Your task to perform on an android device: delete the emails in spam in the gmail app Image 0: 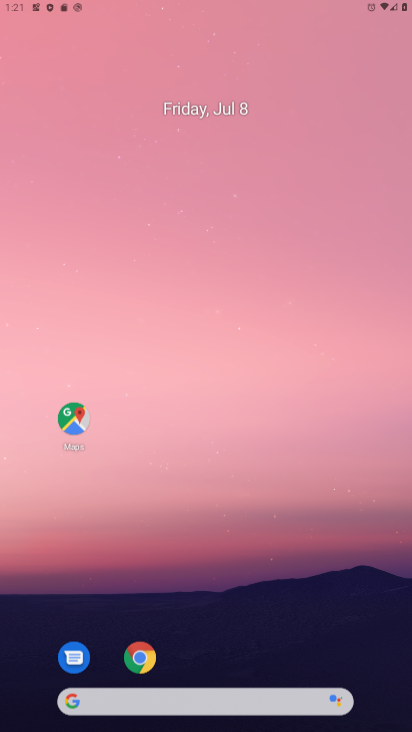
Step 0: press home button
Your task to perform on an android device: delete the emails in spam in the gmail app Image 1: 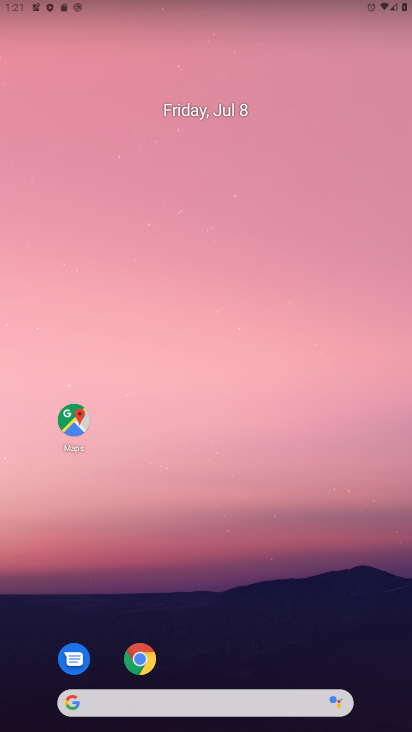
Step 1: drag from (240, 604) to (120, 70)
Your task to perform on an android device: delete the emails in spam in the gmail app Image 2: 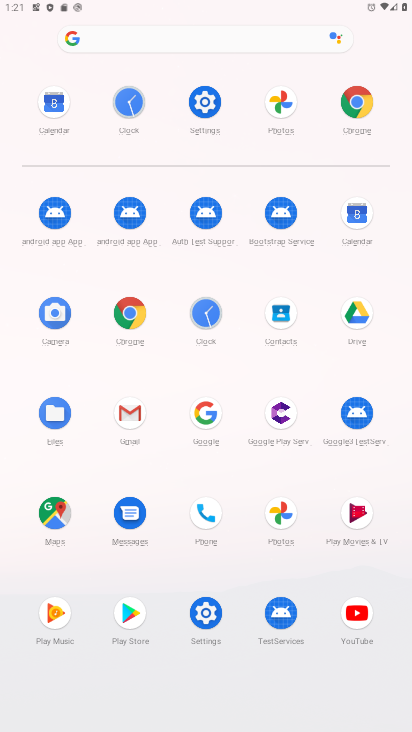
Step 2: click (138, 413)
Your task to perform on an android device: delete the emails in spam in the gmail app Image 3: 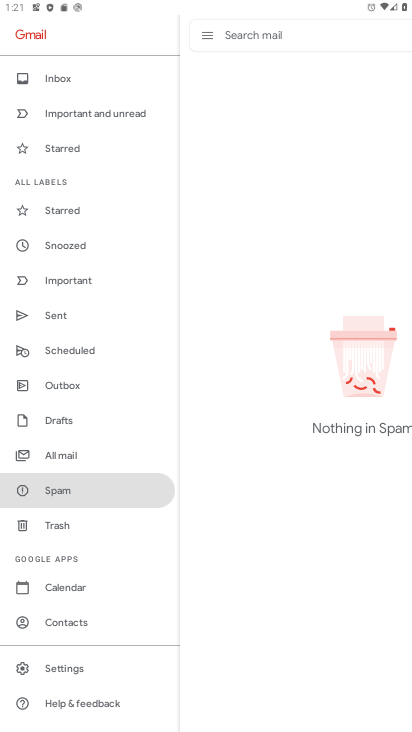
Step 3: click (61, 484)
Your task to perform on an android device: delete the emails in spam in the gmail app Image 4: 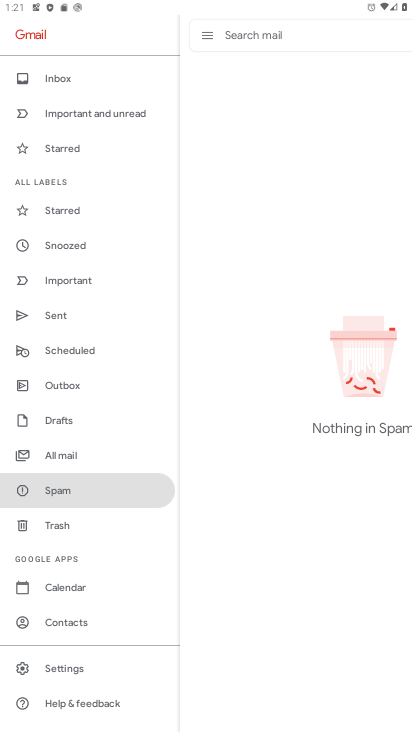
Step 4: task complete